Your task to perform on an android device: turn on the 12-hour format for clock Image 0: 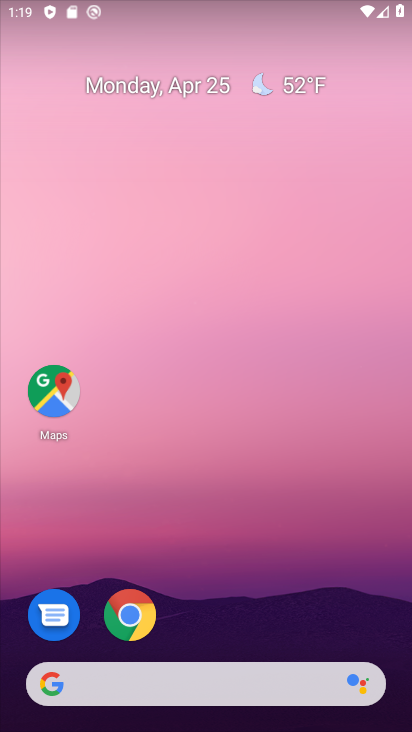
Step 0: drag from (206, 504) to (202, 29)
Your task to perform on an android device: turn on the 12-hour format for clock Image 1: 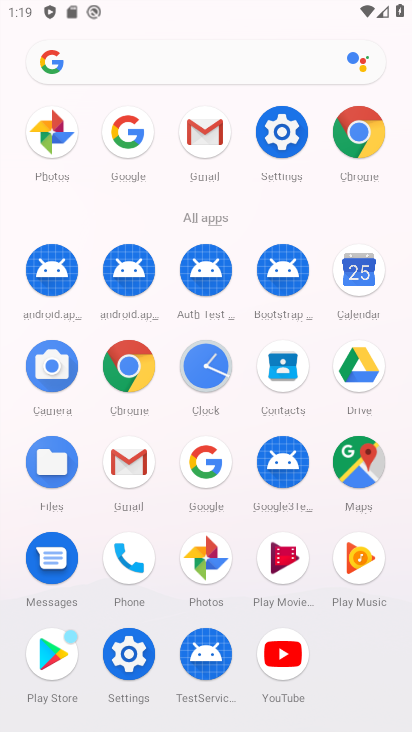
Step 1: click (204, 365)
Your task to perform on an android device: turn on the 12-hour format for clock Image 2: 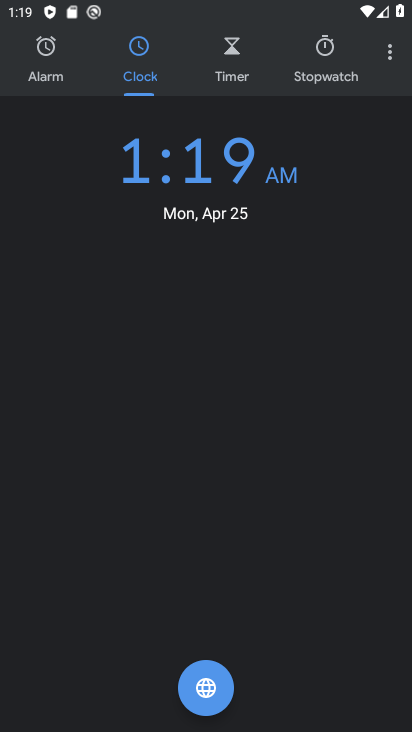
Step 2: click (391, 52)
Your task to perform on an android device: turn on the 12-hour format for clock Image 3: 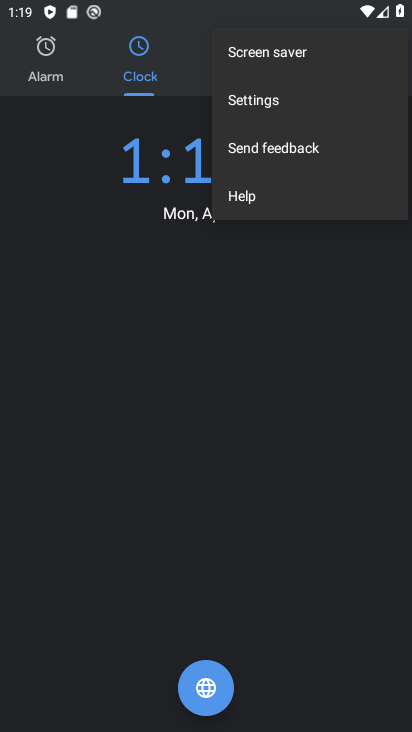
Step 3: click (268, 105)
Your task to perform on an android device: turn on the 12-hour format for clock Image 4: 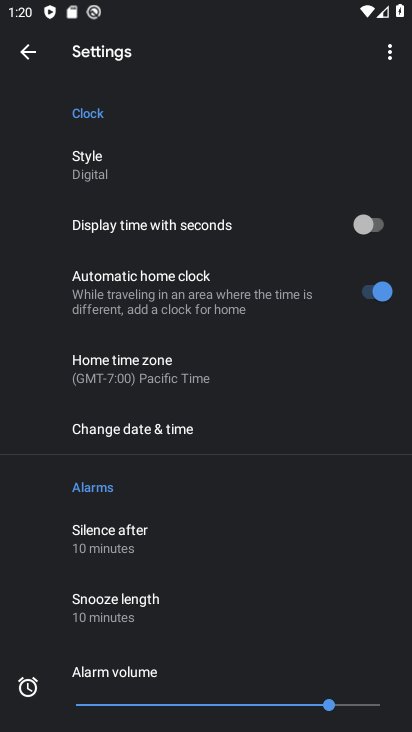
Step 4: click (129, 432)
Your task to perform on an android device: turn on the 12-hour format for clock Image 5: 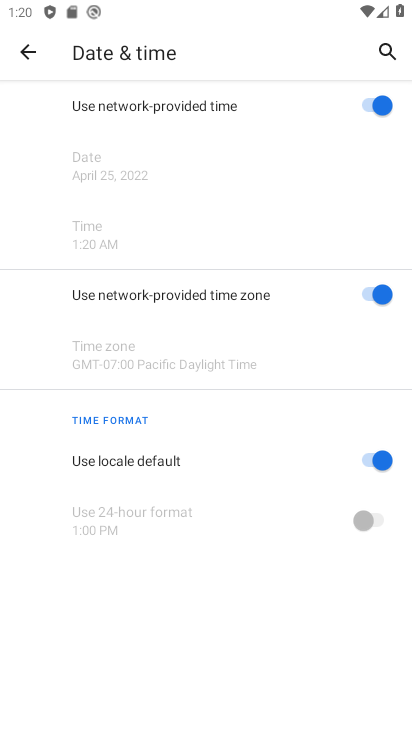
Step 5: task complete